Your task to perform on an android device: find which apps use the phone's location Image 0: 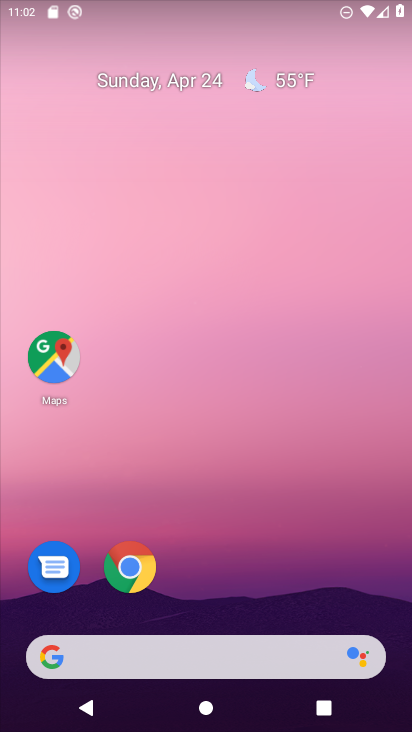
Step 0: drag from (387, 633) to (257, 187)
Your task to perform on an android device: find which apps use the phone's location Image 1: 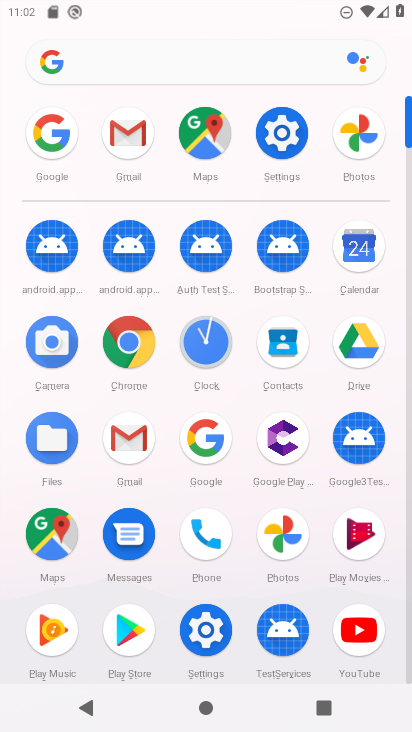
Step 1: click (279, 139)
Your task to perform on an android device: find which apps use the phone's location Image 2: 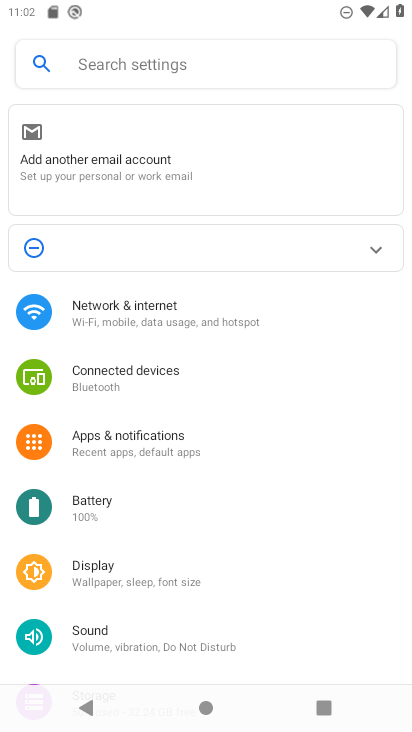
Step 2: drag from (309, 556) to (272, 365)
Your task to perform on an android device: find which apps use the phone's location Image 3: 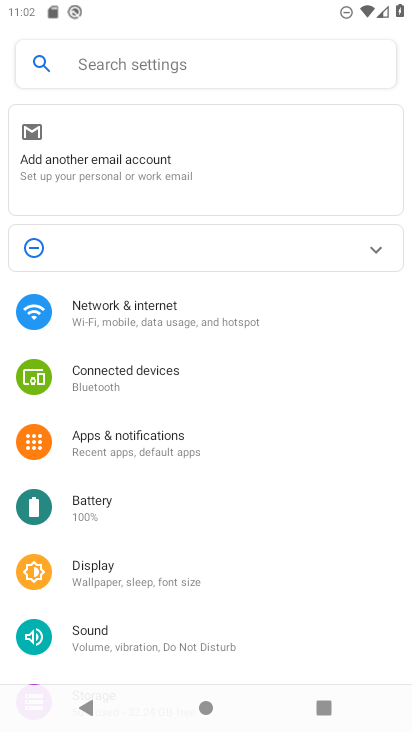
Step 3: drag from (296, 600) to (258, 329)
Your task to perform on an android device: find which apps use the phone's location Image 4: 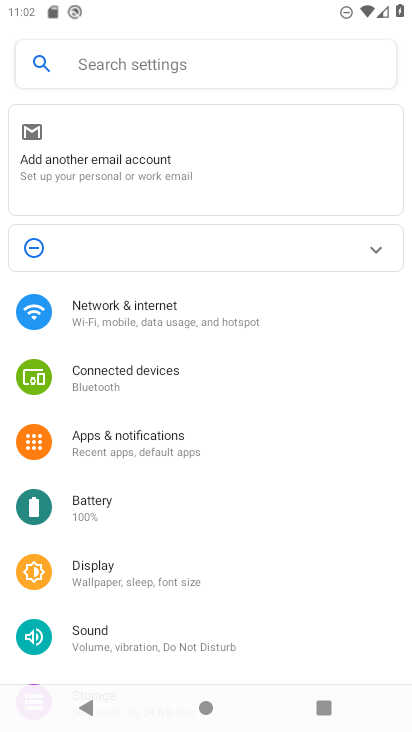
Step 4: drag from (290, 548) to (285, 310)
Your task to perform on an android device: find which apps use the phone's location Image 5: 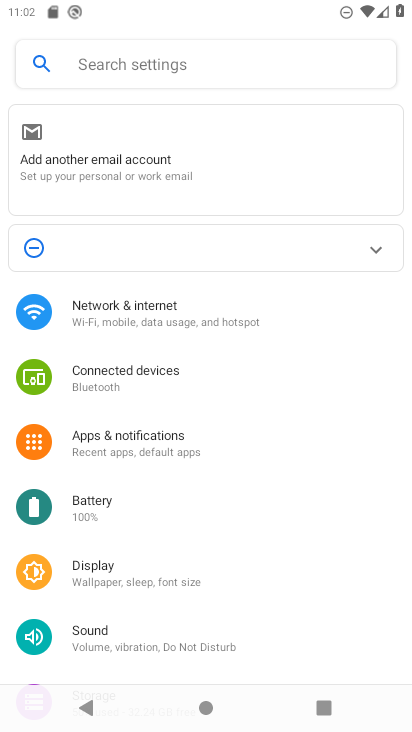
Step 5: click (267, 304)
Your task to perform on an android device: find which apps use the phone's location Image 6: 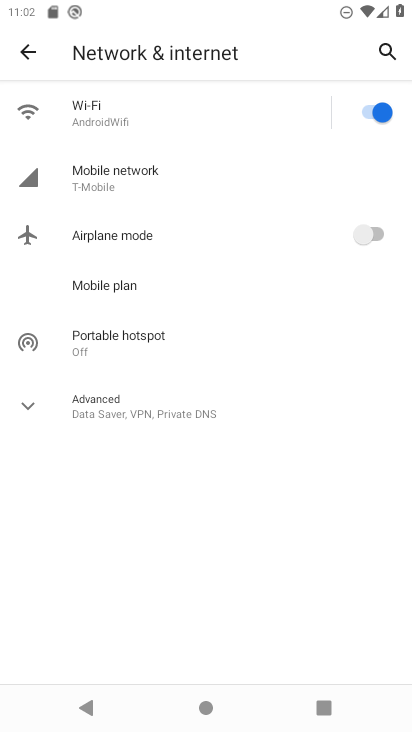
Step 6: drag from (295, 556) to (280, 369)
Your task to perform on an android device: find which apps use the phone's location Image 7: 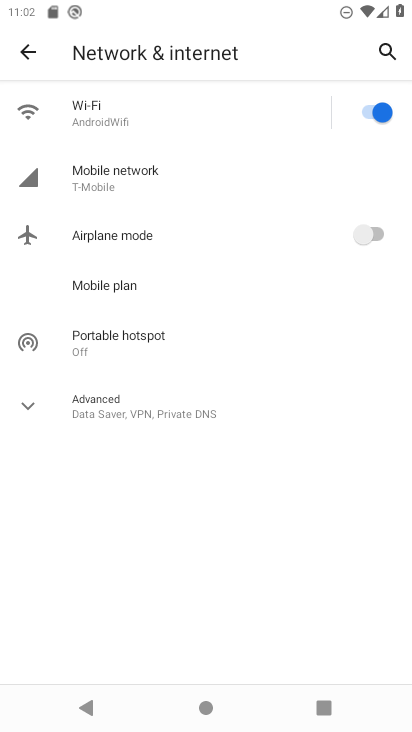
Step 7: click (24, 50)
Your task to perform on an android device: find which apps use the phone's location Image 8: 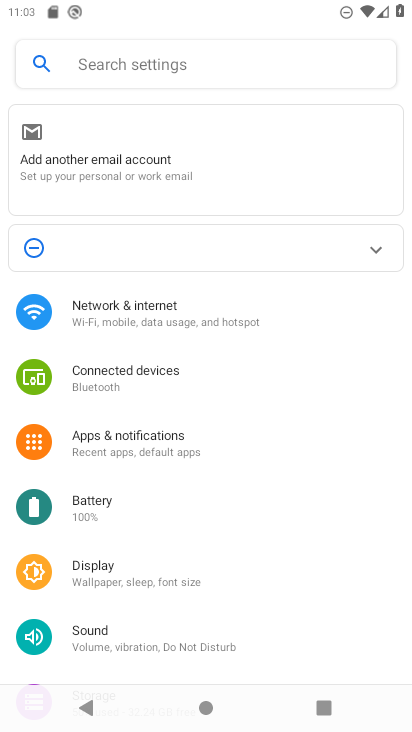
Step 8: drag from (321, 353) to (291, 205)
Your task to perform on an android device: find which apps use the phone's location Image 9: 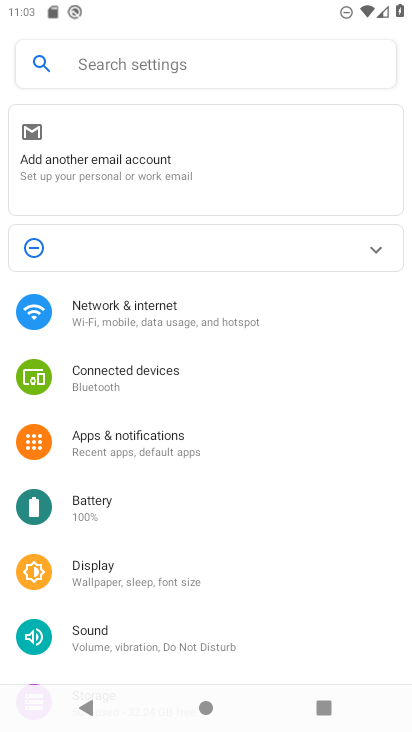
Step 9: drag from (303, 522) to (281, 157)
Your task to perform on an android device: find which apps use the phone's location Image 10: 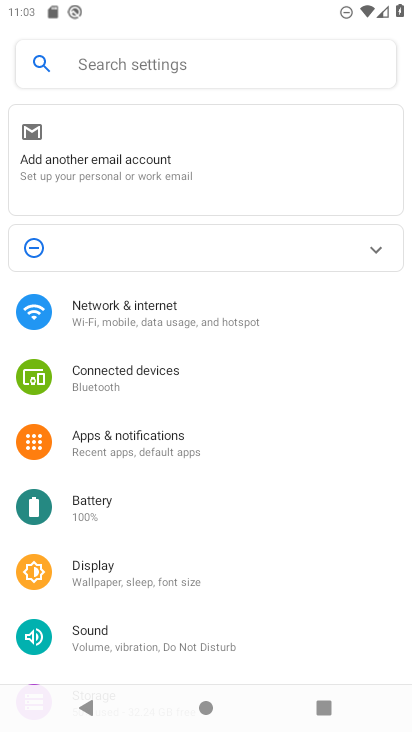
Step 10: drag from (329, 634) to (299, 299)
Your task to perform on an android device: find which apps use the phone's location Image 11: 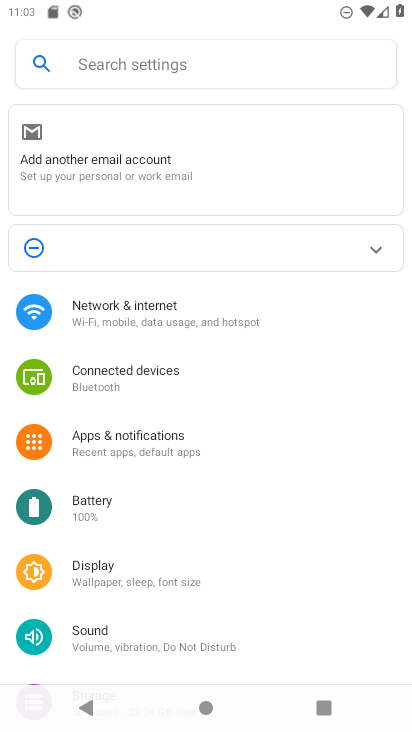
Step 11: drag from (315, 639) to (296, 401)
Your task to perform on an android device: find which apps use the phone's location Image 12: 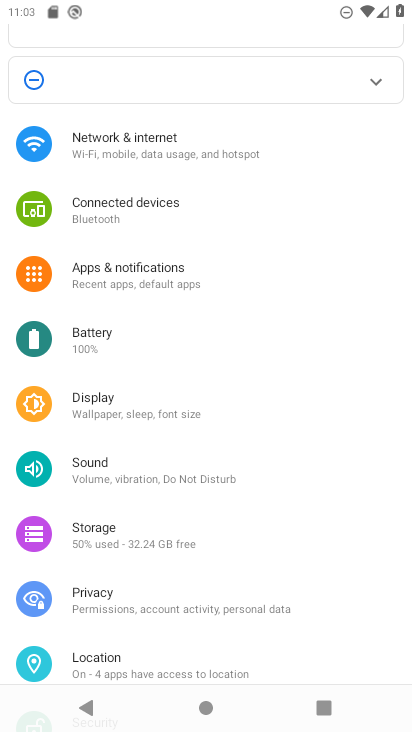
Step 12: click (77, 663)
Your task to perform on an android device: find which apps use the phone's location Image 13: 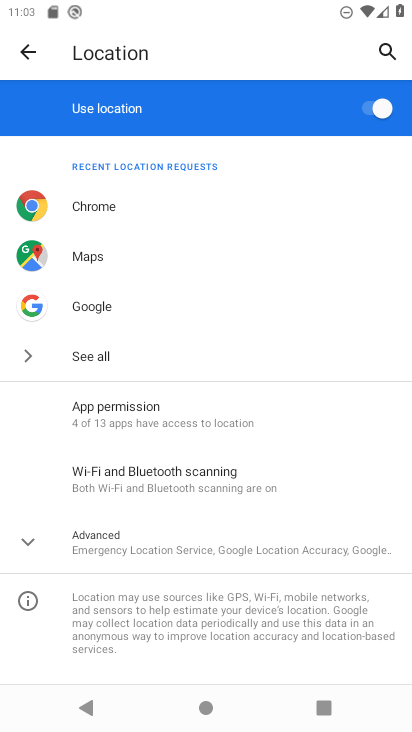
Step 13: click (64, 404)
Your task to perform on an android device: find which apps use the phone's location Image 14: 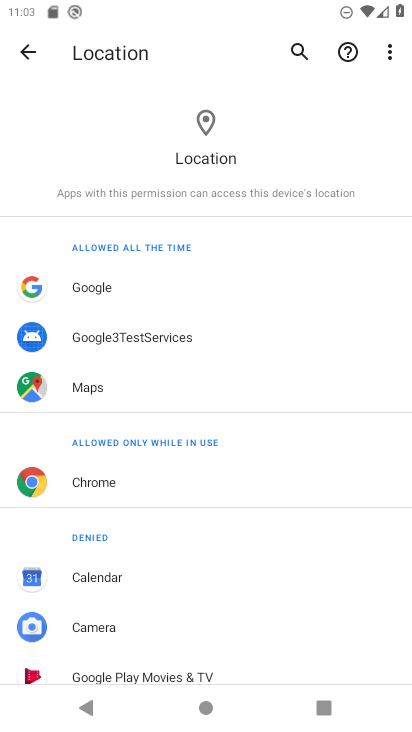
Step 14: task complete